Your task to perform on an android device: Open accessibility settings Image 0: 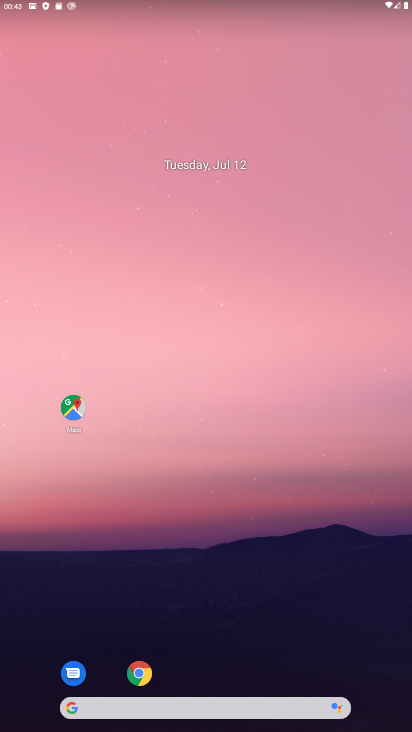
Step 0: press home button
Your task to perform on an android device: Open accessibility settings Image 1: 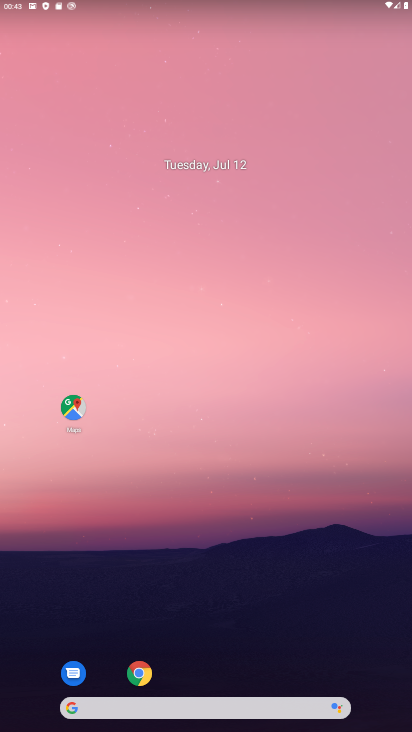
Step 1: drag from (271, 590) to (286, 66)
Your task to perform on an android device: Open accessibility settings Image 2: 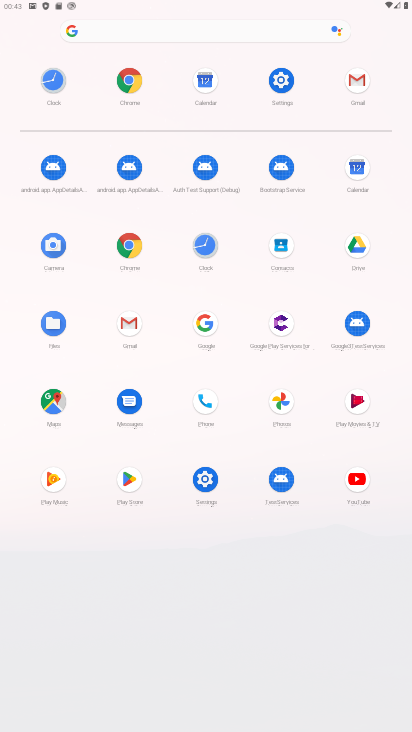
Step 2: click (286, 79)
Your task to perform on an android device: Open accessibility settings Image 3: 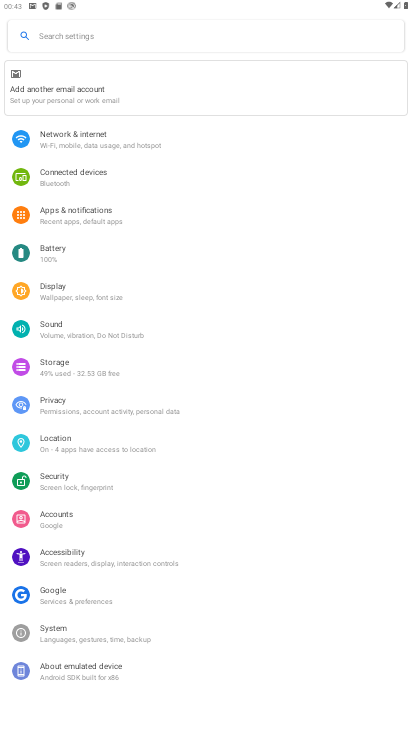
Step 3: click (46, 555)
Your task to perform on an android device: Open accessibility settings Image 4: 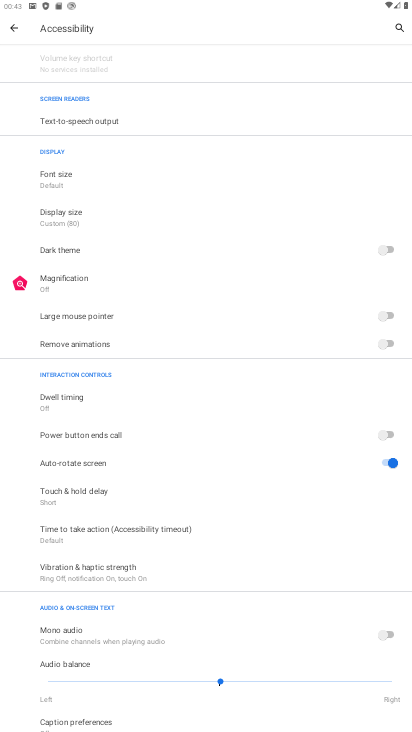
Step 4: task complete